Your task to perform on an android device: move a message to another label in the gmail app Image 0: 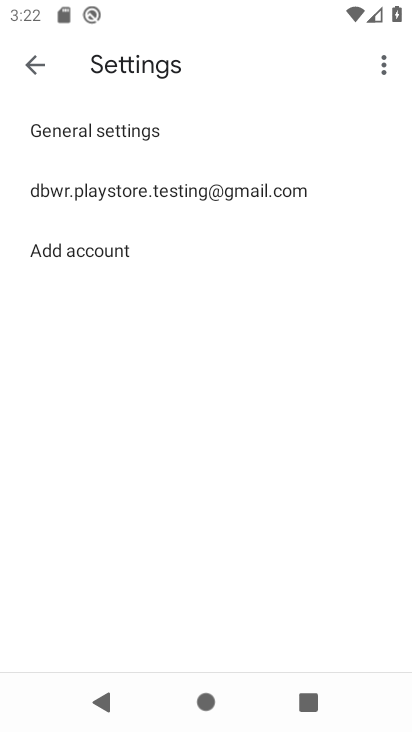
Step 0: press back button
Your task to perform on an android device: move a message to another label in the gmail app Image 1: 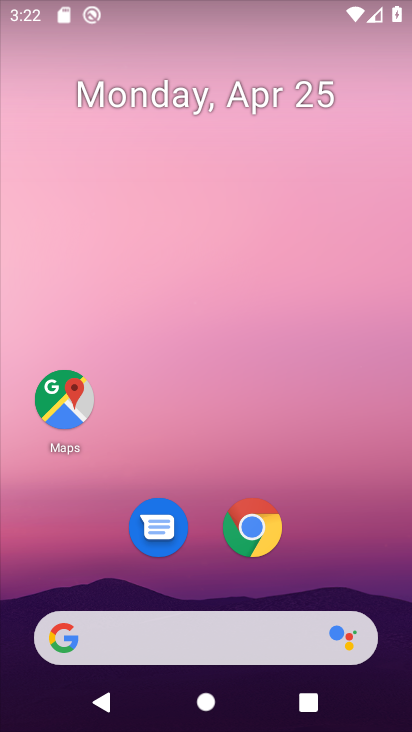
Step 1: drag from (396, 616) to (375, 334)
Your task to perform on an android device: move a message to another label in the gmail app Image 2: 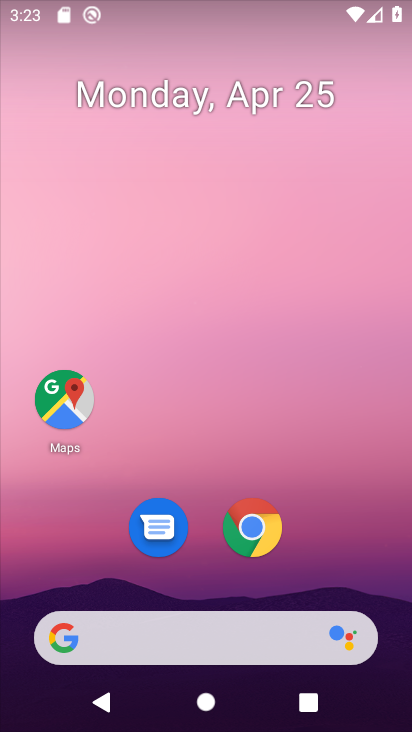
Step 2: drag from (385, 622) to (331, 134)
Your task to perform on an android device: move a message to another label in the gmail app Image 3: 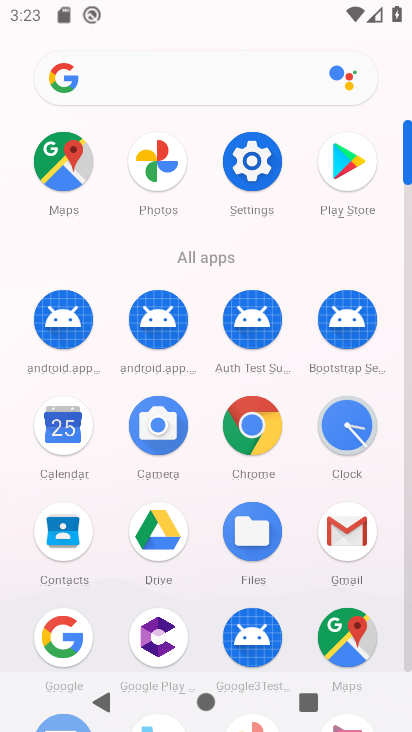
Step 3: click (404, 648)
Your task to perform on an android device: move a message to another label in the gmail app Image 4: 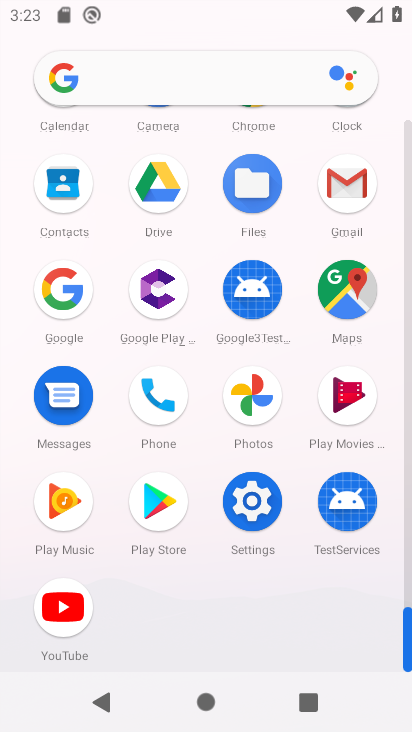
Step 4: click (347, 178)
Your task to perform on an android device: move a message to another label in the gmail app Image 5: 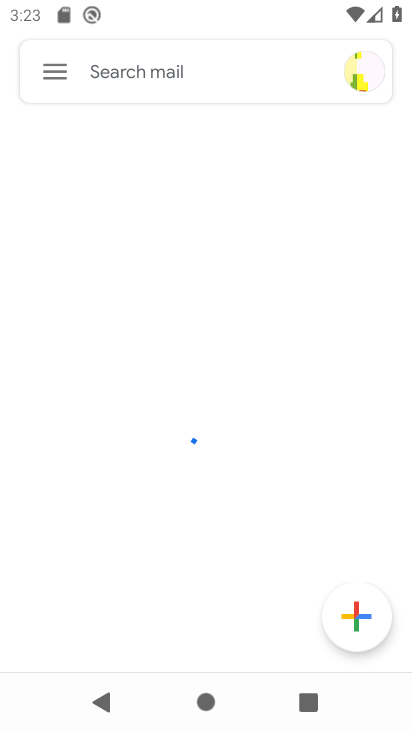
Step 5: click (53, 71)
Your task to perform on an android device: move a message to another label in the gmail app Image 6: 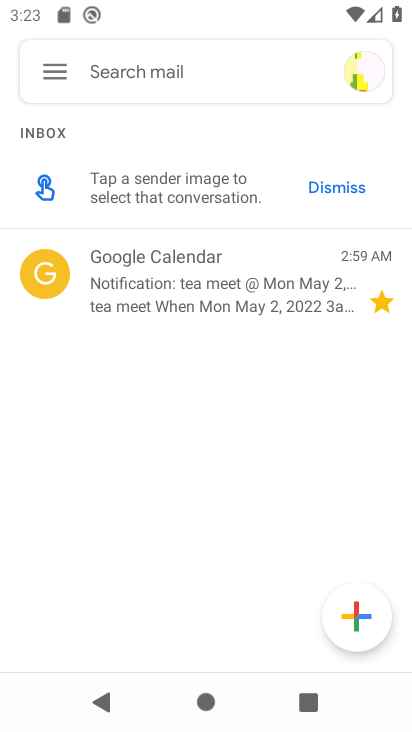
Step 6: click (189, 295)
Your task to perform on an android device: move a message to another label in the gmail app Image 7: 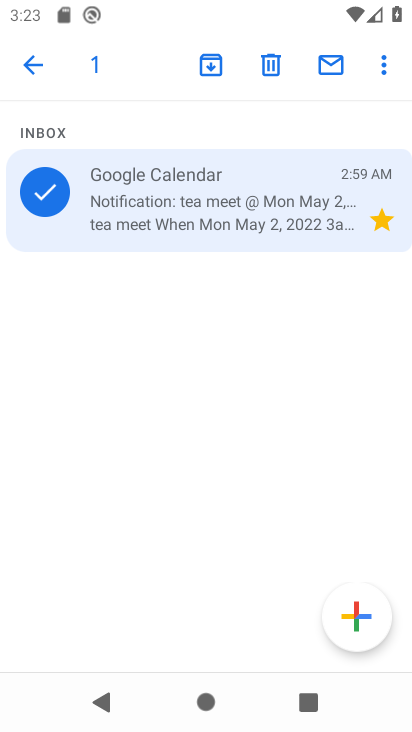
Step 7: press back button
Your task to perform on an android device: move a message to another label in the gmail app Image 8: 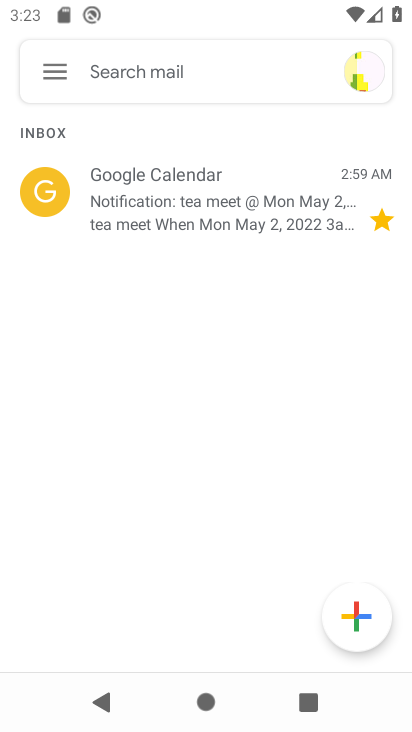
Step 8: click (54, 67)
Your task to perform on an android device: move a message to another label in the gmail app Image 9: 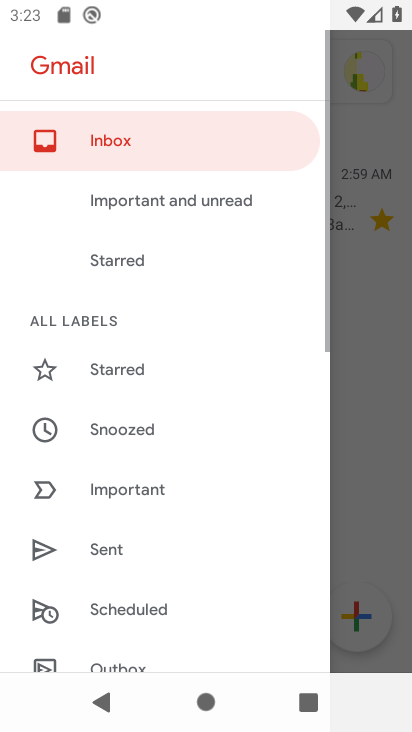
Step 9: click (121, 159)
Your task to perform on an android device: move a message to another label in the gmail app Image 10: 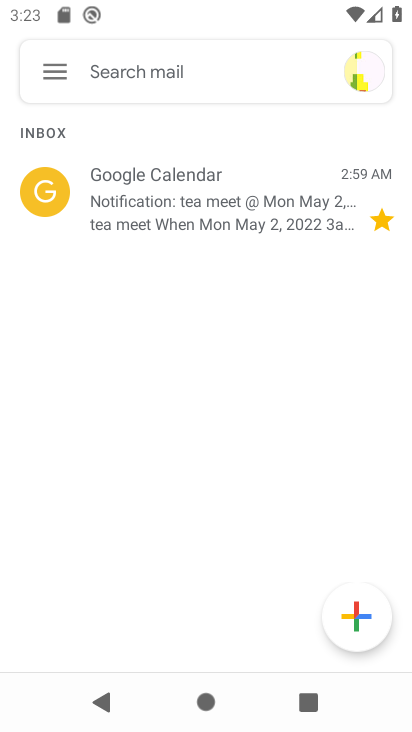
Step 10: click (276, 198)
Your task to perform on an android device: move a message to another label in the gmail app Image 11: 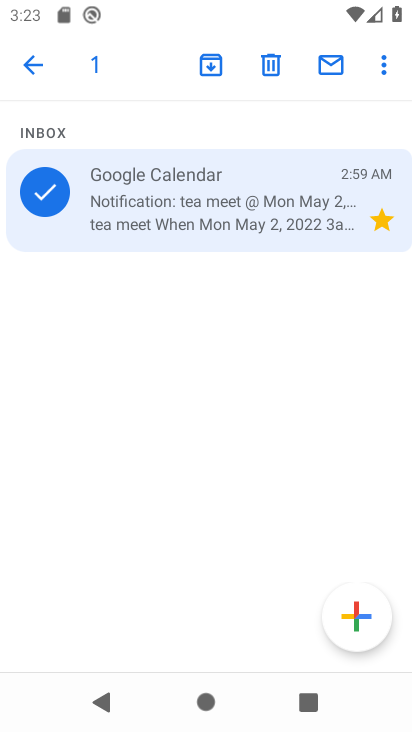
Step 11: click (385, 60)
Your task to perform on an android device: move a message to another label in the gmail app Image 12: 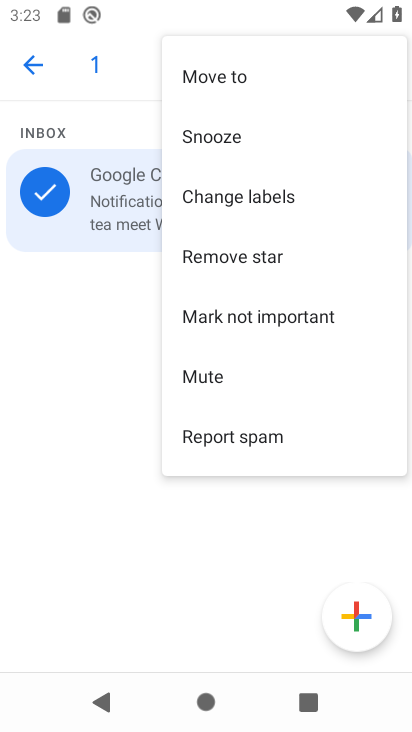
Step 12: click (204, 73)
Your task to perform on an android device: move a message to another label in the gmail app Image 13: 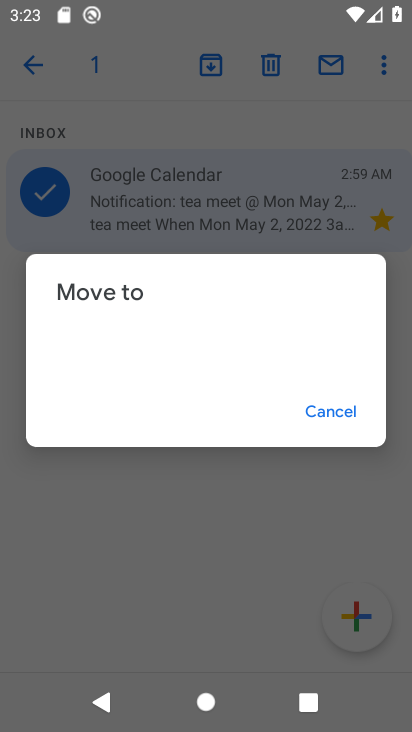
Step 13: task complete